Your task to perform on an android device: Do I have any events today? Image 0: 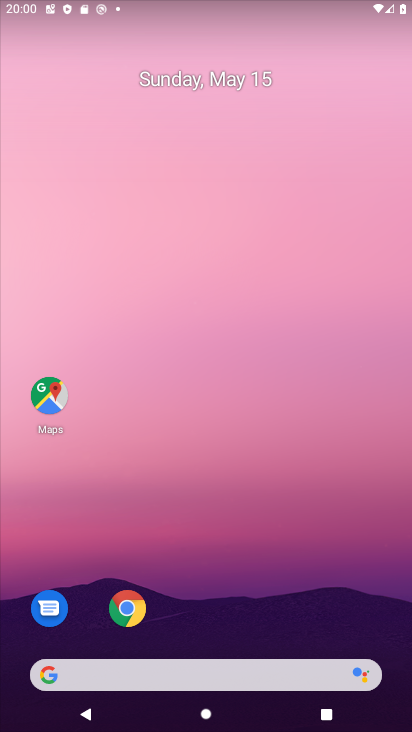
Step 0: drag from (203, 612) to (203, 123)
Your task to perform on an android device: Do I have any events today? Image 1: 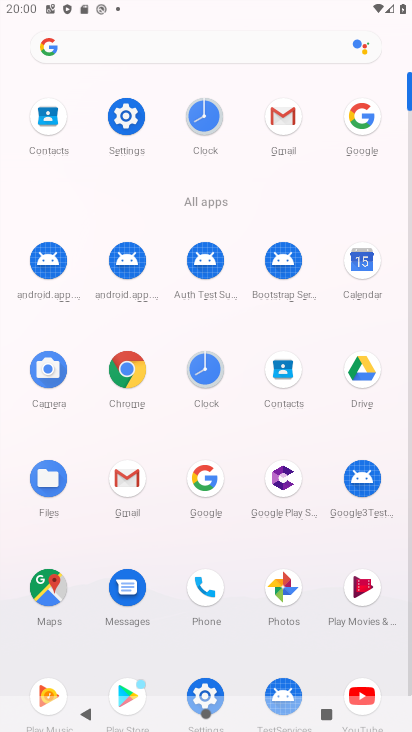
Step 1: click (366, 256)
Your task to perform on an android device: Do I have any events today? Image 2: 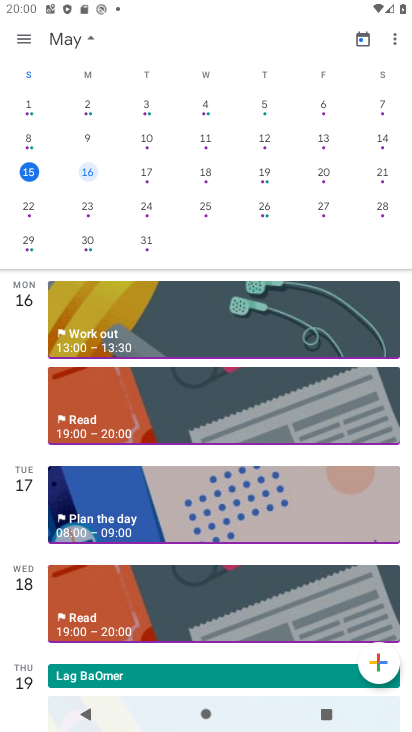
Step 2: click (36, 171)
Your task to perform on an android device: Do I have any events today? Image 3: 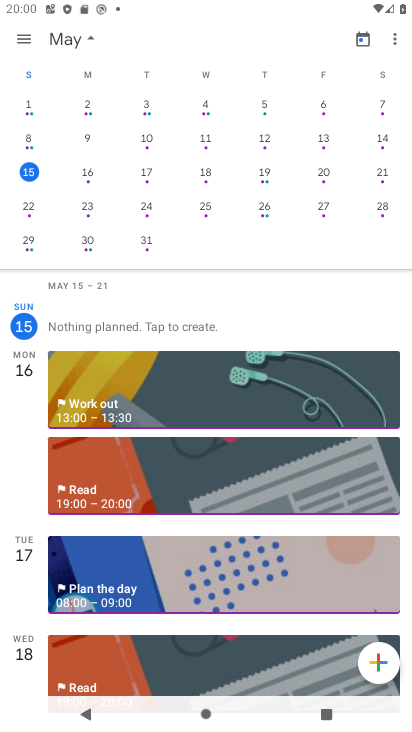
Step 3: task complete